Your task to perform on an android device: Show me productivity apps on the Play Store Image 0: 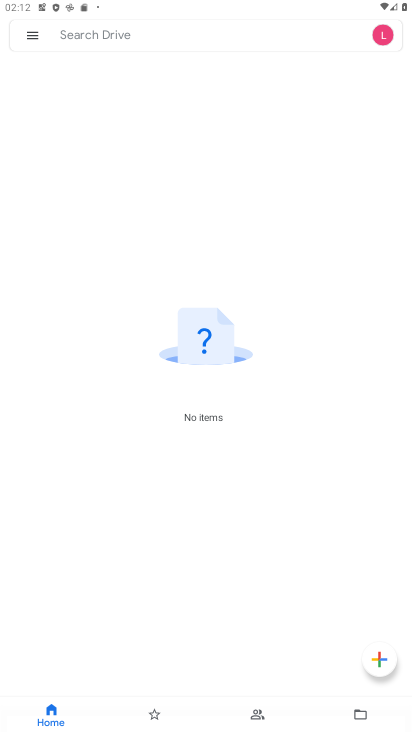
Step 0: press home button
Your task to perform on an android device: Show me productivity apps on the Play Store Image 1: 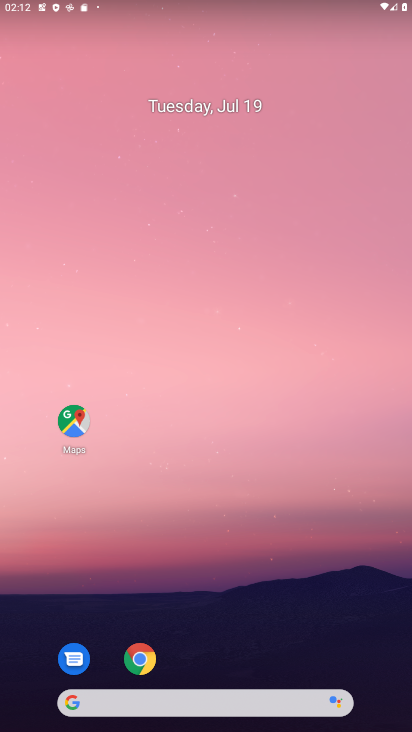
Step 1: drag from (262, 559) to (325, 45)
Your task to perform on an android device: Show me productivity apps on the Play Store Image 2: 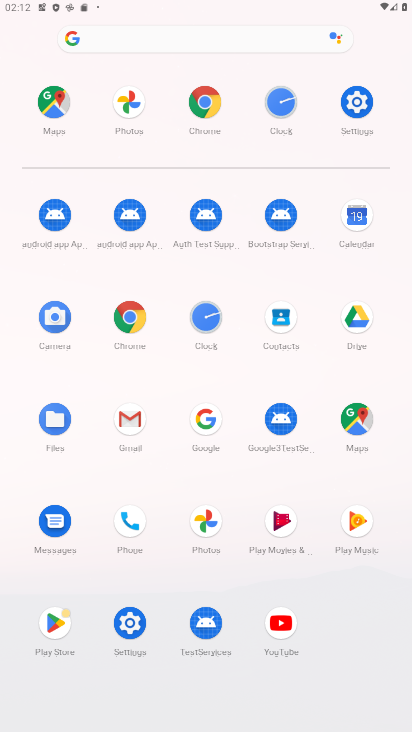
Step 2: click (33, 639)
Your task to perform on an android device: Show me productivity apps on the Play Store Image 3: 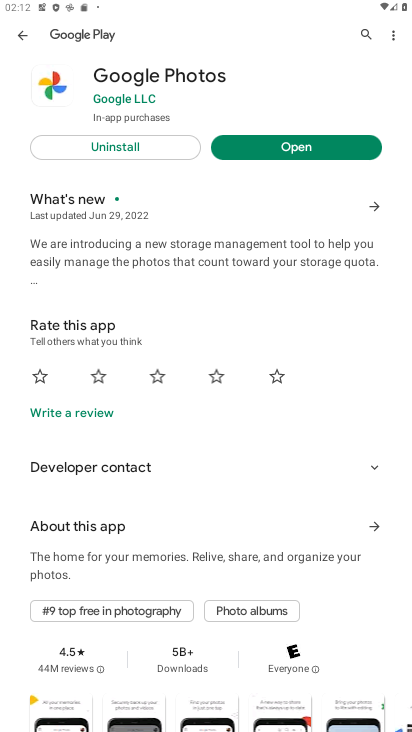
Step 3: click (363, 36)
Your task to perform on an android device: Show me productivity apps on the Play Store Image 4: 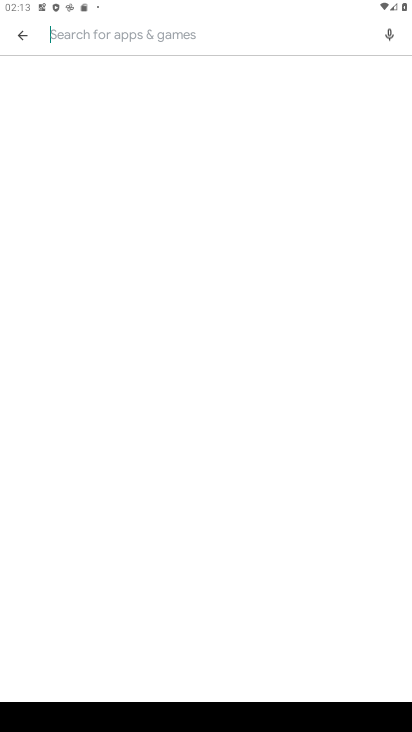
Step 4: type " productivity apps "
Your task to perform on an android device: Show me productivity apps on the Play Store Image 5: 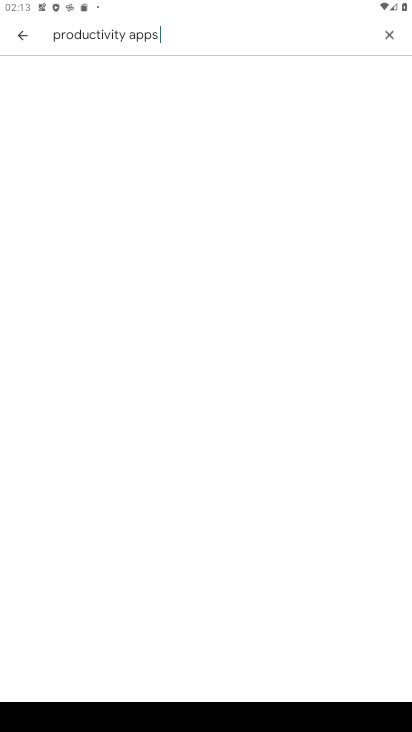
Step 5: type ""
Your task to perform on an android device: Show me productivity apps on the Play Store Image 6: 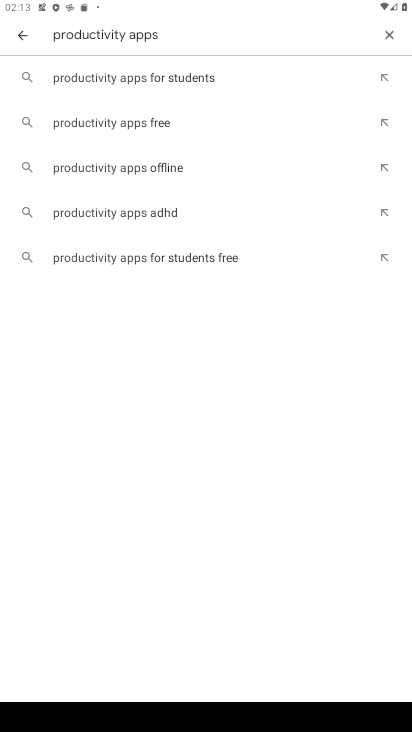
Step 6: click (149, 87)
Your task to perform on an android device: Show me productivity apps on the Play Store Image 7: 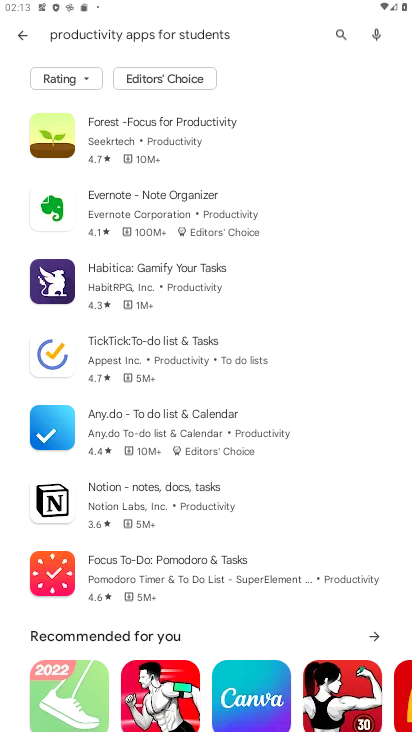
Step 7: task complete